Your task to perform on an android device: Add apple airpods pro to the cart on amazon Image 0: 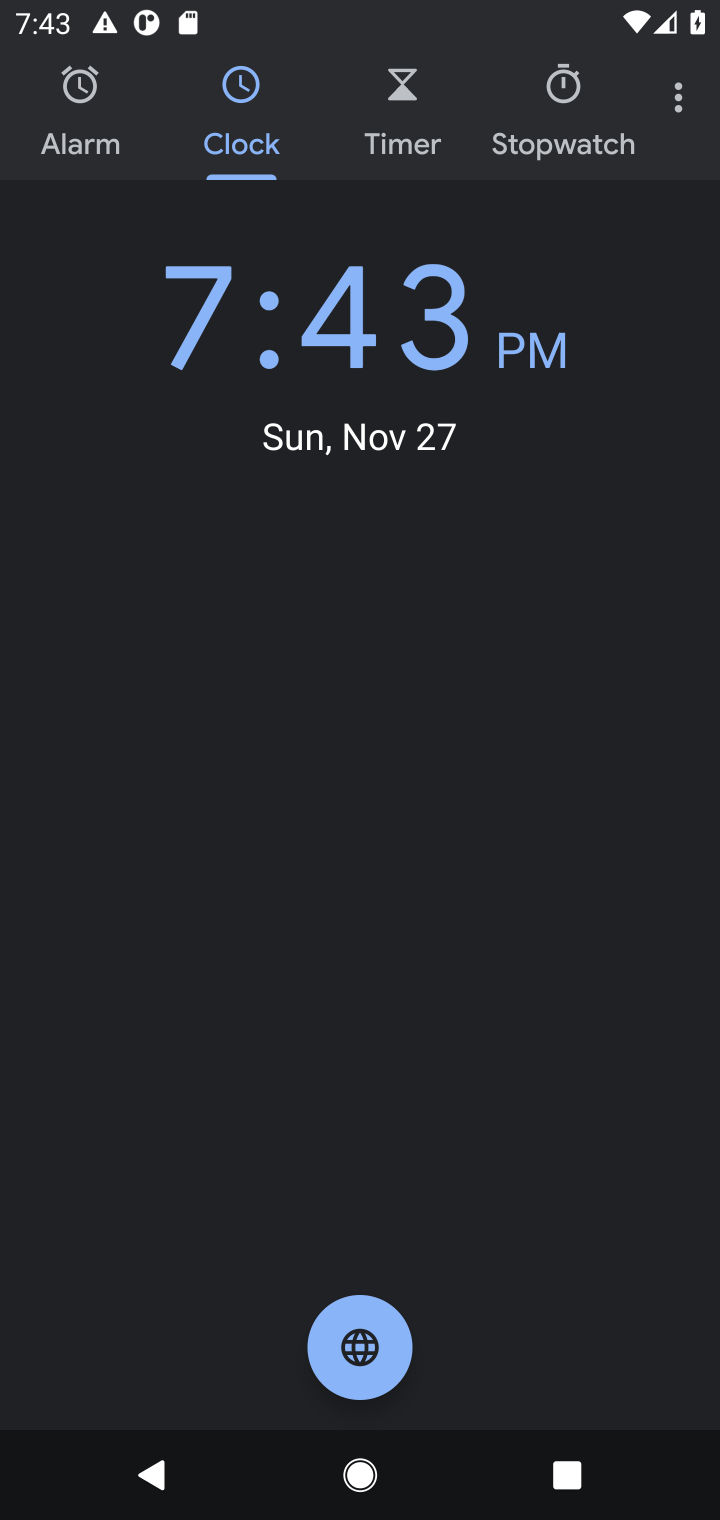
Step 0: press home button
Your task to perform on an android device: Add apple airpods pro to the cart on amazon Image 1: 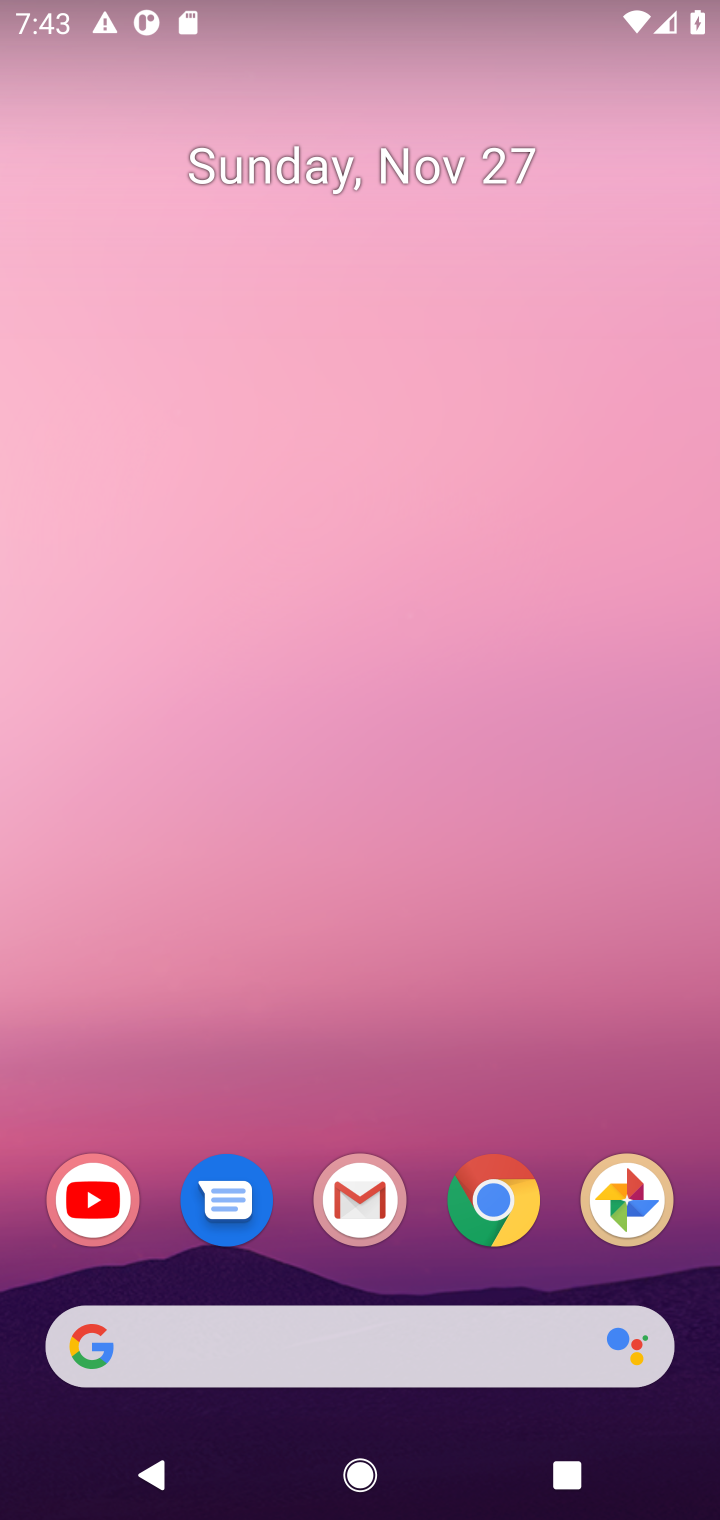
Step 1: click (475, 1163)
Your task to perform on an android device: Add apple airpods pro to the cart on amazon Image 2: 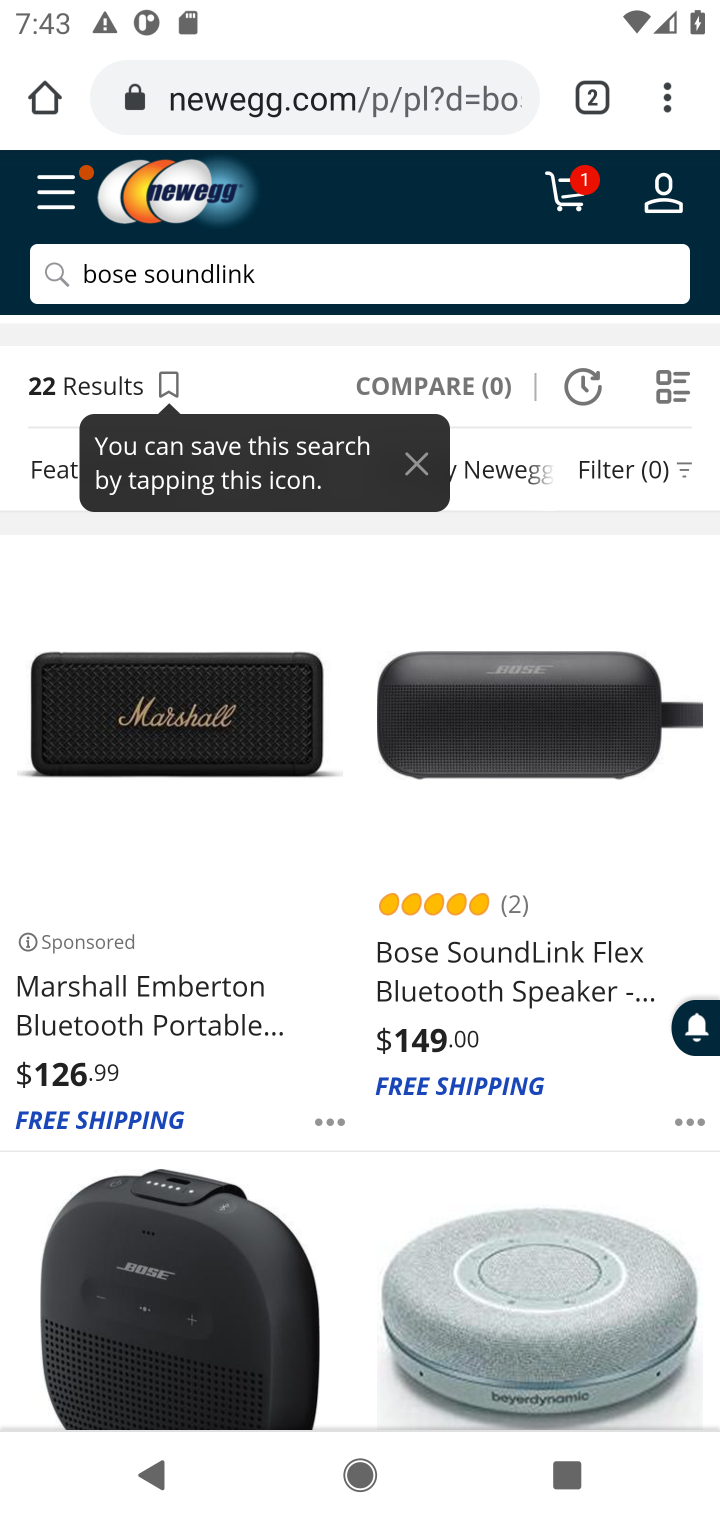
Step 2: click (267, 95)
Your task to perform on an android device: Add apple airpods pro to the cart on amazon Image 3: 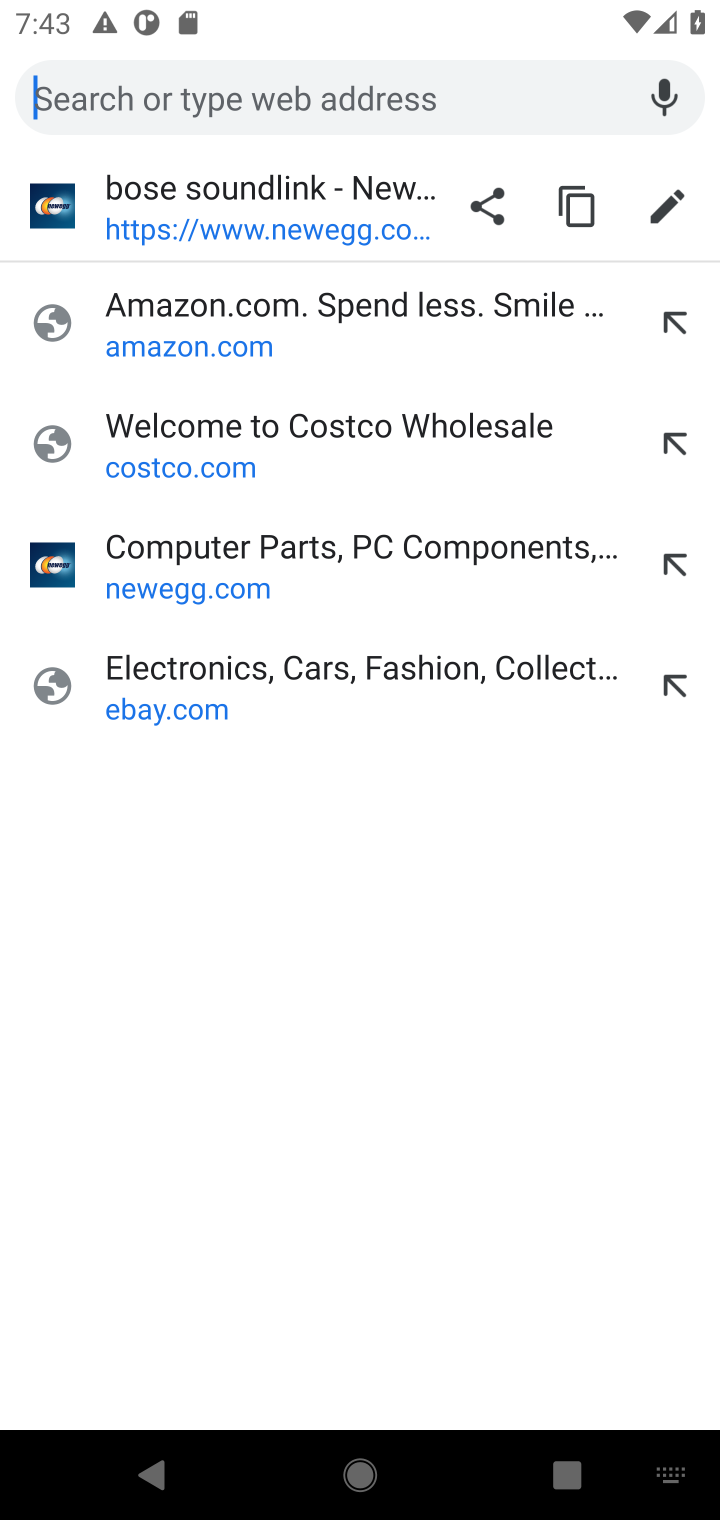
Step 3: click (151, 354)
Your task to perform on an android device: Add apple airpods pro to the cart on amazon Image 4: 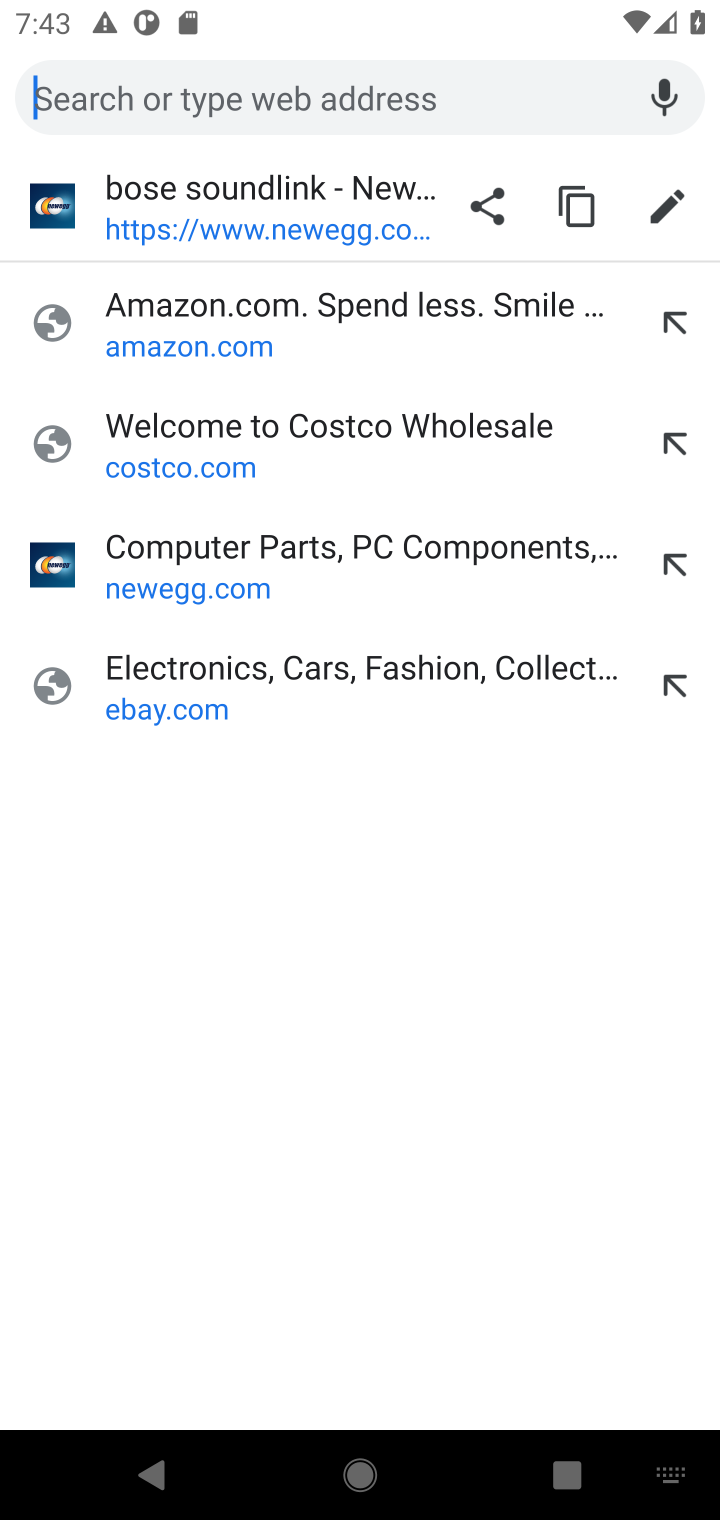
Step 4: click (166, 323)
Your task to perform on an android device: Add apple airpods pro to the cart on amazon Image 5: 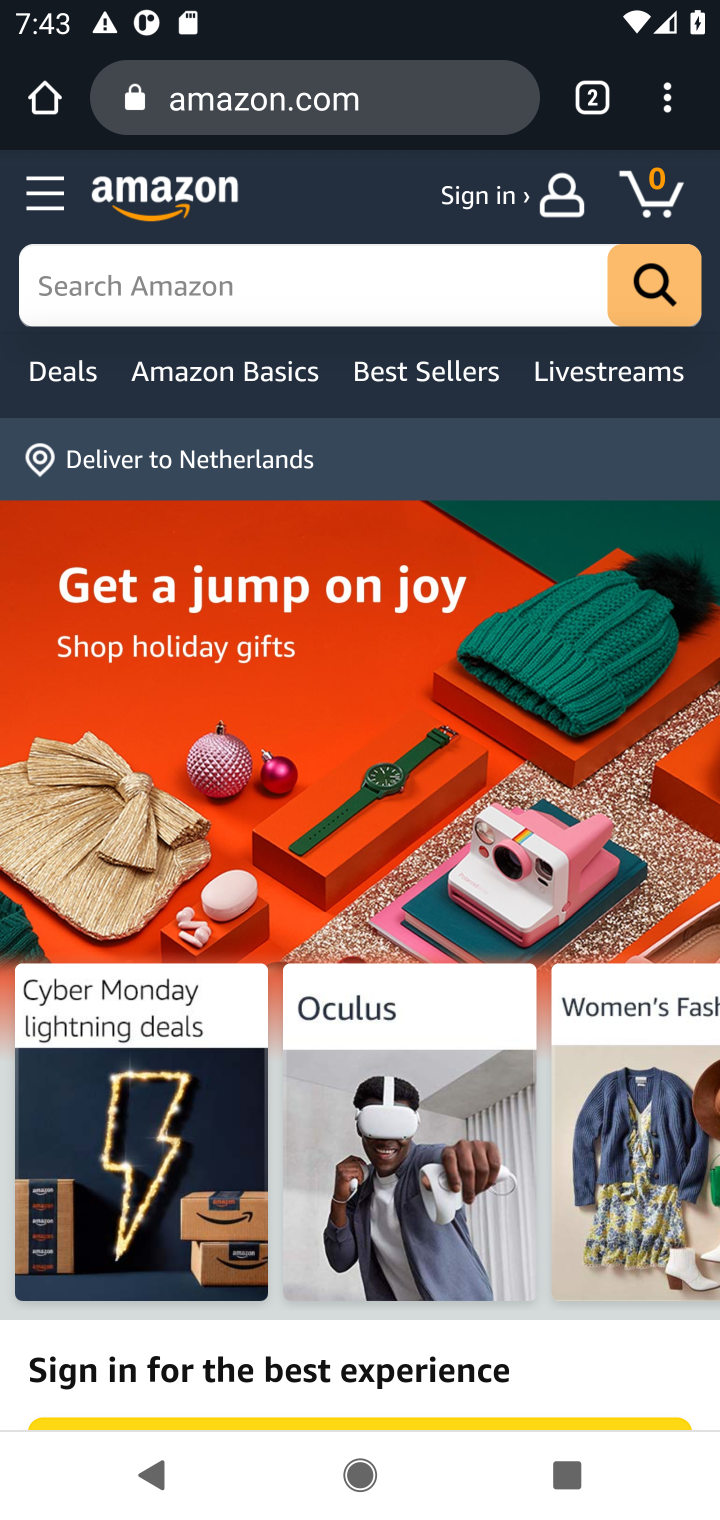
Step 5: click (216, 292)
Your task to perform on an android device: Add apple airpods pro to the cart on amazon Image 6: 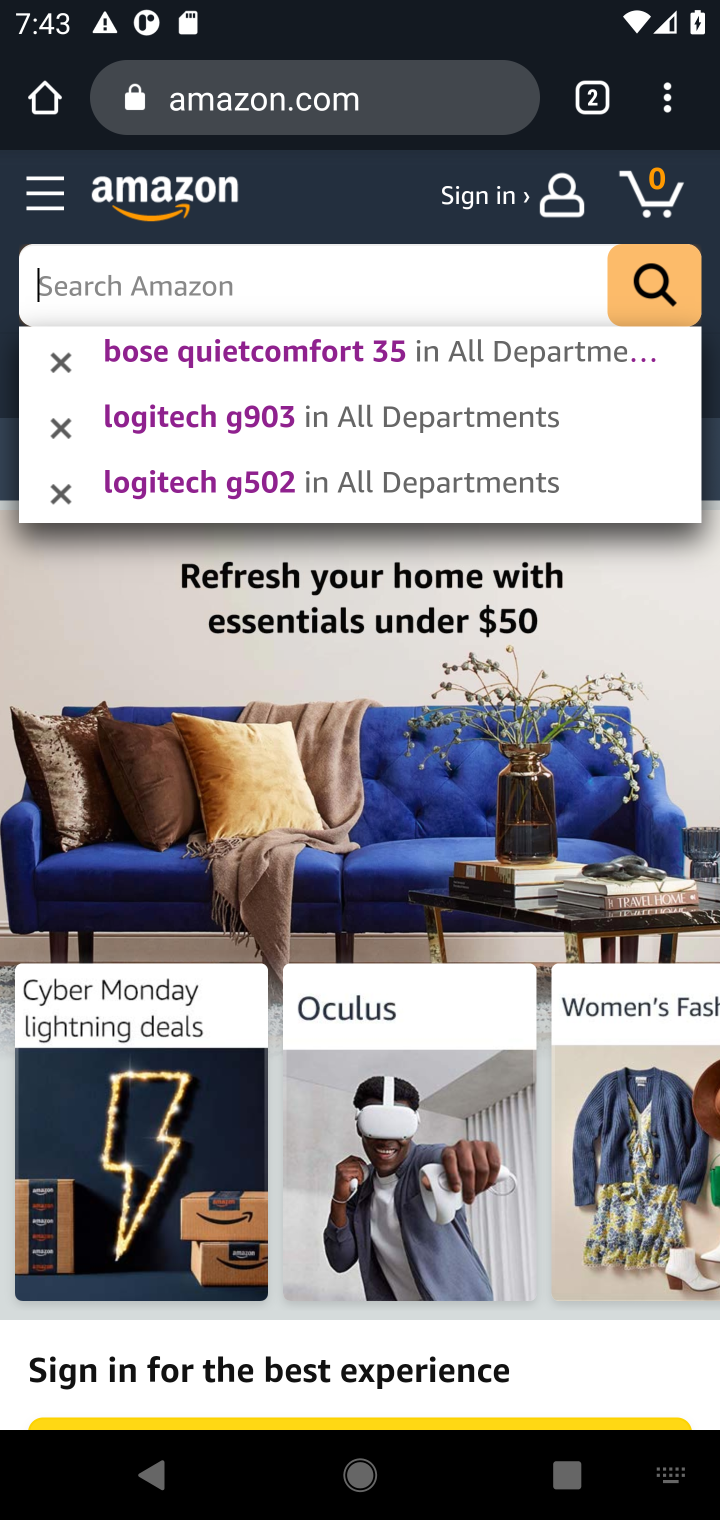
Step 6: type "apple airpods pro"
Your task to perform on an android device: Add apple airpods pro to the cart on amazon Image 7: 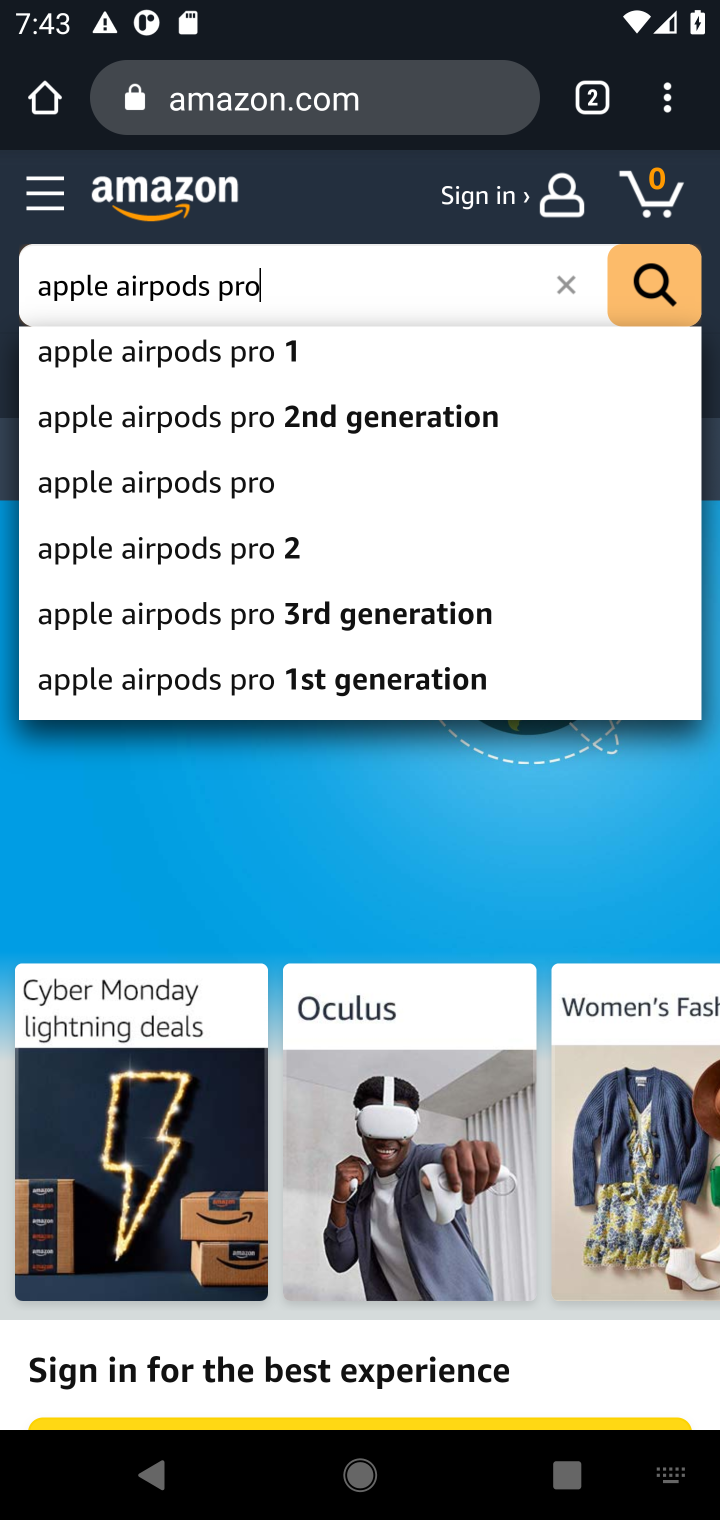
Step 7: click (183, 490)
Your task to perform on an android device: Add apple airpods pro to the cart on amazon Image 8: 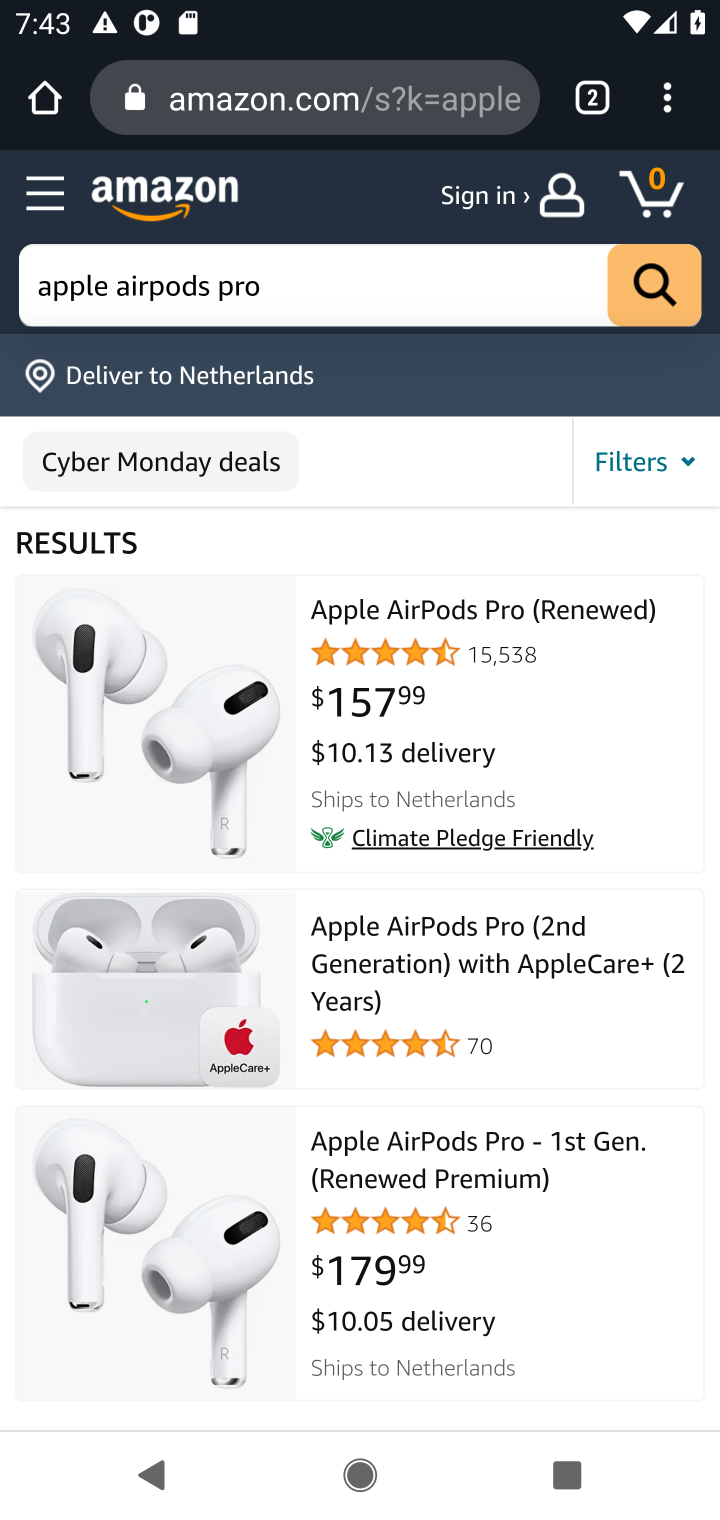
Step 8: click (176, 743)
Your task to perform on an android device: Add apple airpods pro to the cart on amazon Image 9: 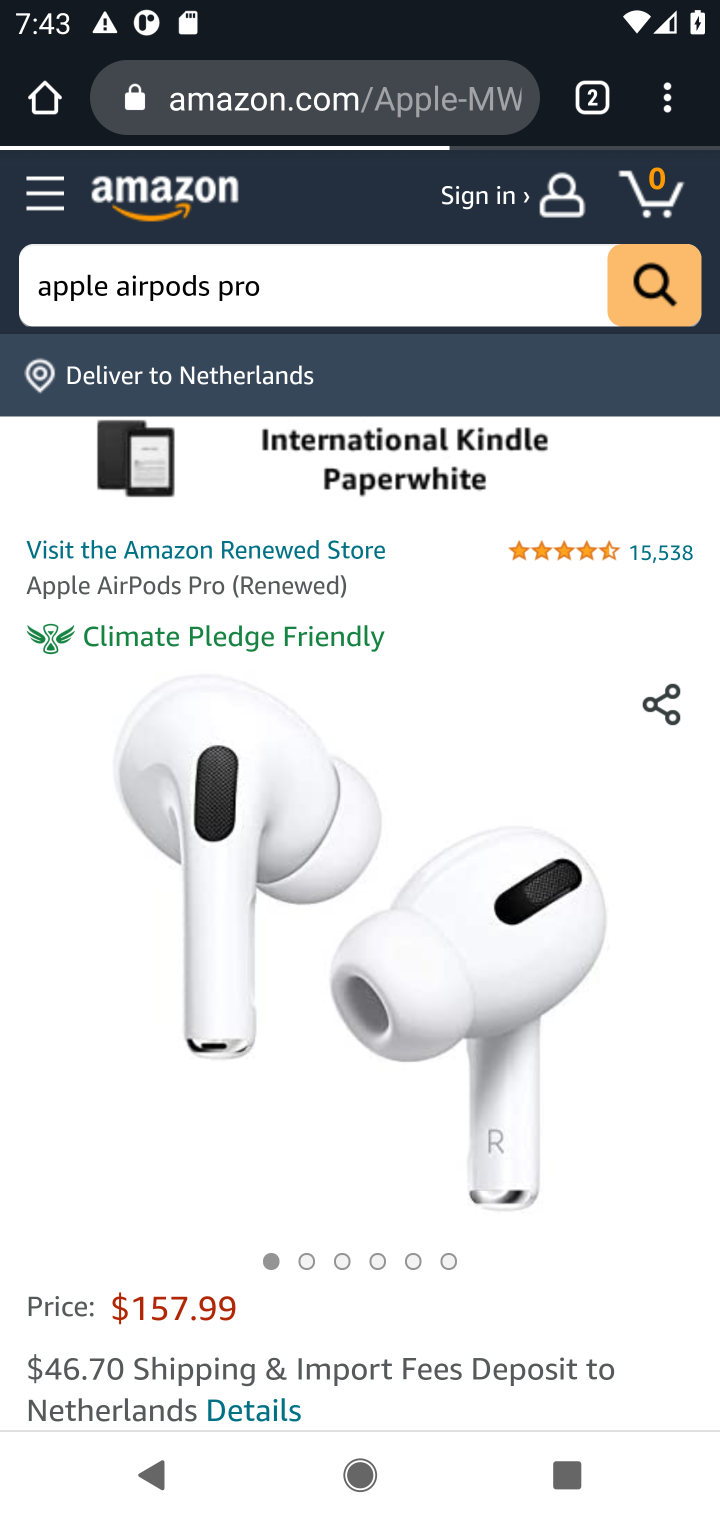
Step 9: drag from (274, 1219) to (258, 620)
Your task to perform on an android device: Add apple airpods pro to the cart on amazon Image 10: 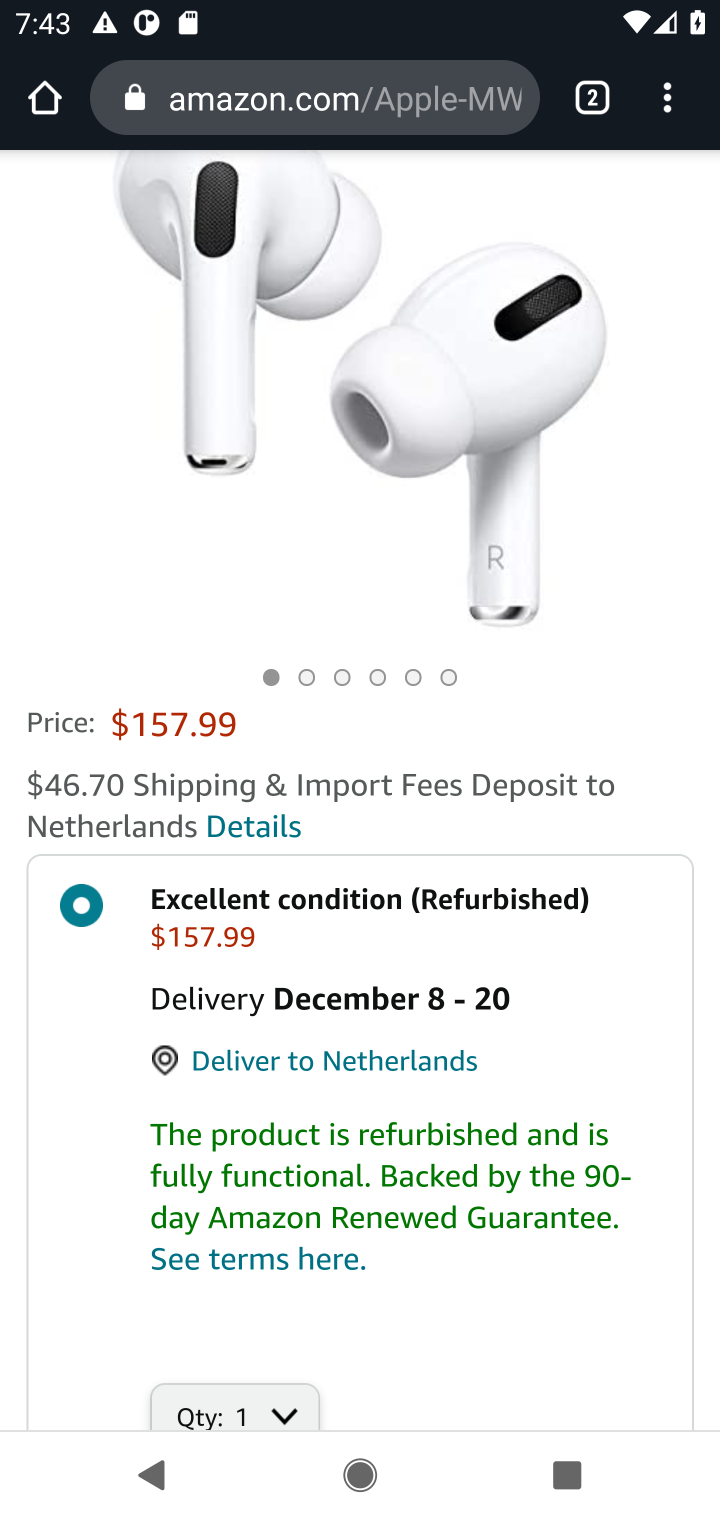
Step 10: drag from (250, 970) to (271, 581)
Your task to perform on an android device: Add apple airpods pro to the cart on amazon Image 11: 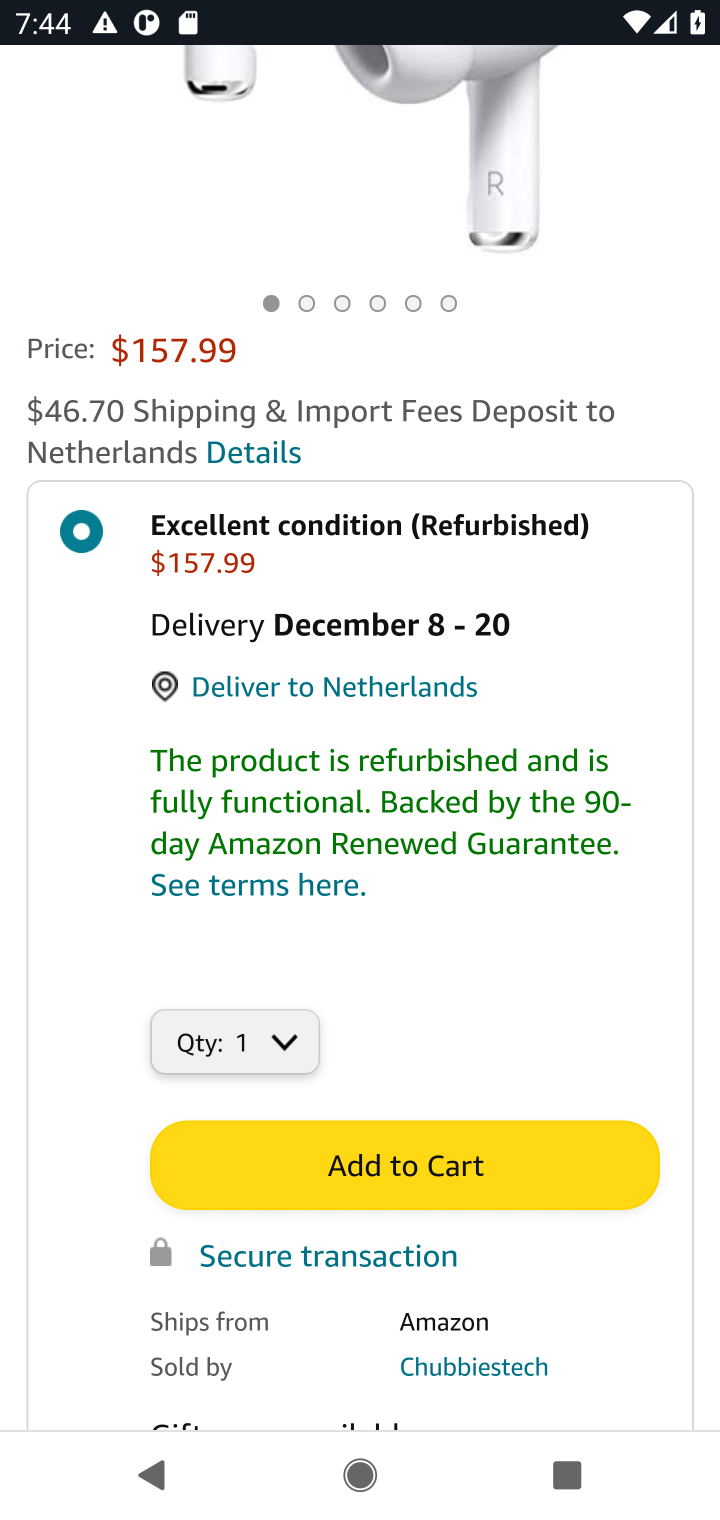
Step 11: click (358, 1157)
Your task to perform on an android device: Add apple airpods pro to the cart on amazon Image 12: 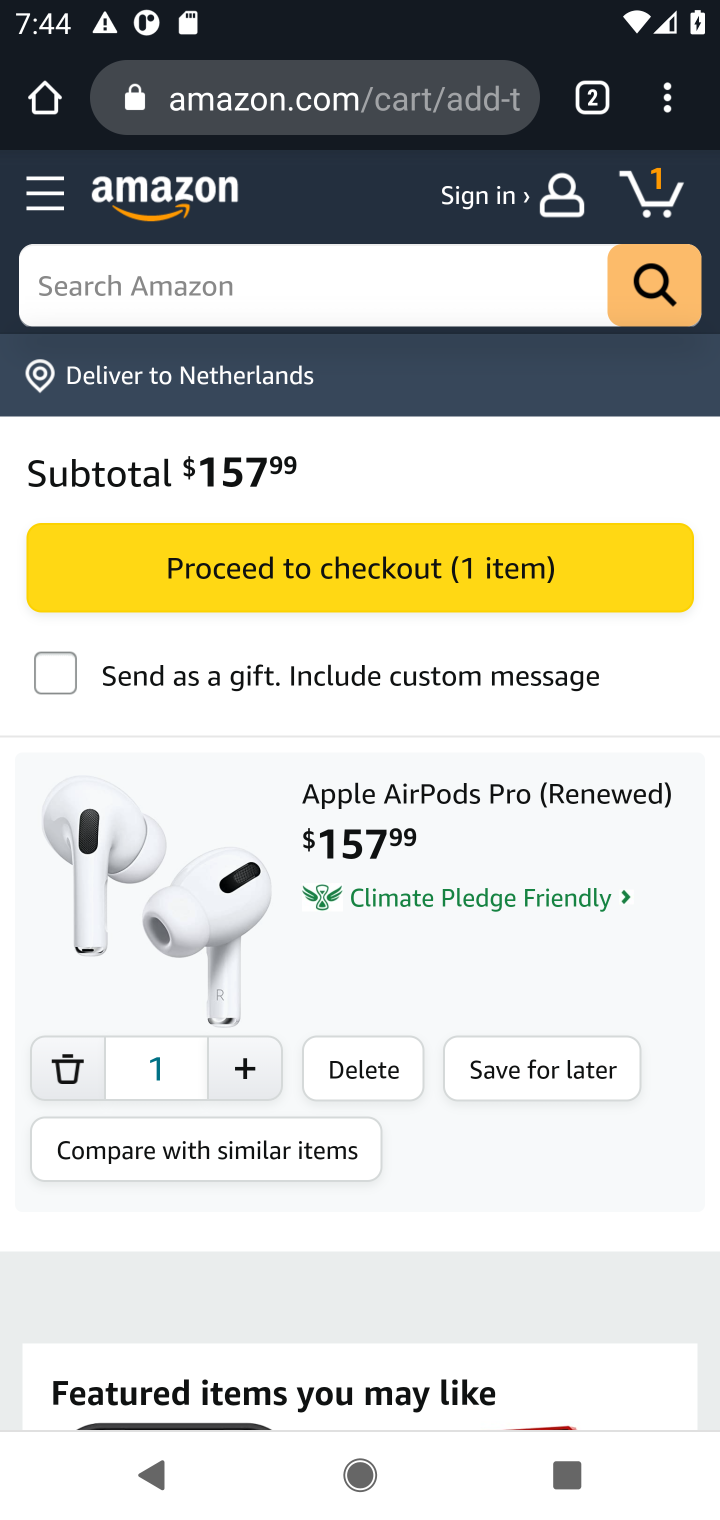
Step 12: task complete